Your task to perform on an android device: stop showing notifications on the lock screen Image 0: 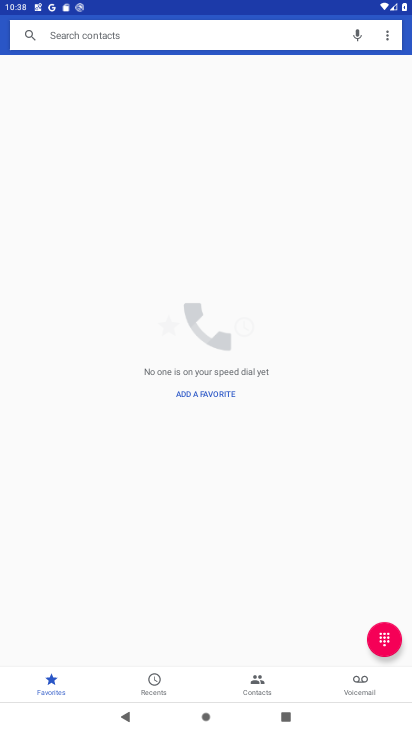
Step 0: press home button
Your task to perform on an android device: stop showing notifications on the lock screen Image 1: 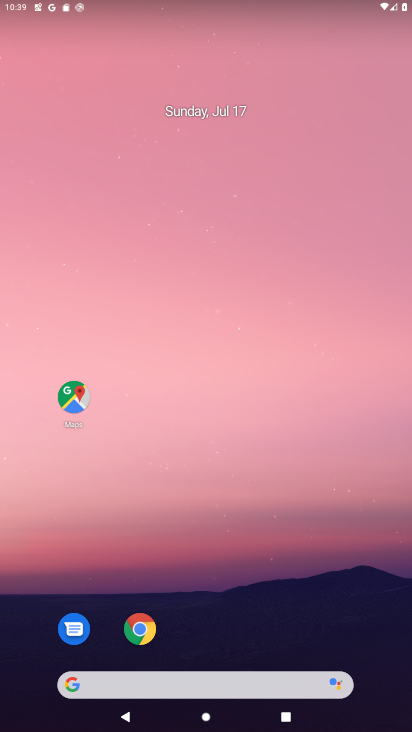
Step 1: drag from (179, 681) to (372, 96)
Your task to perform on an android device: stop showing notifications on the lock screen Image 2: 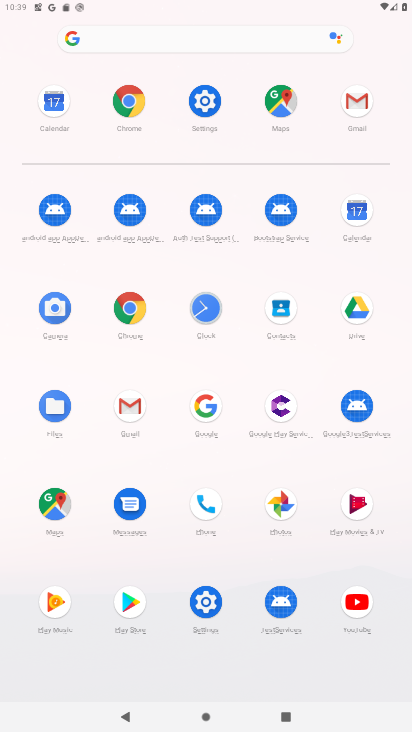
Step 2: click (204, 99)
Your task to perform on an android device: stop showing notifications on the lock screen Image 3: 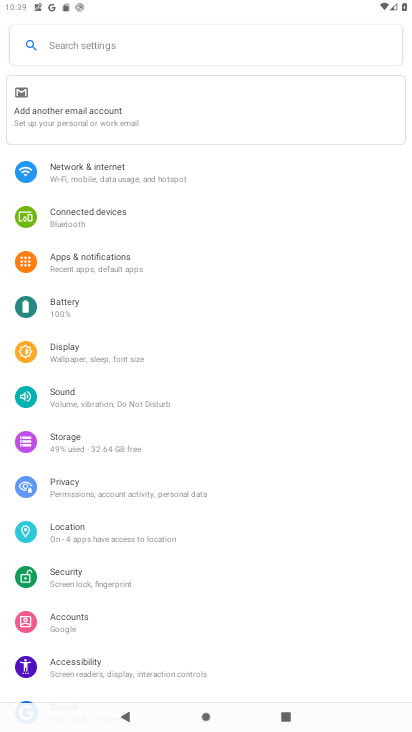
Step 3: click (119, 269)
Your task to perform on an android device: stop showing notifications on the lock screen Image 4: 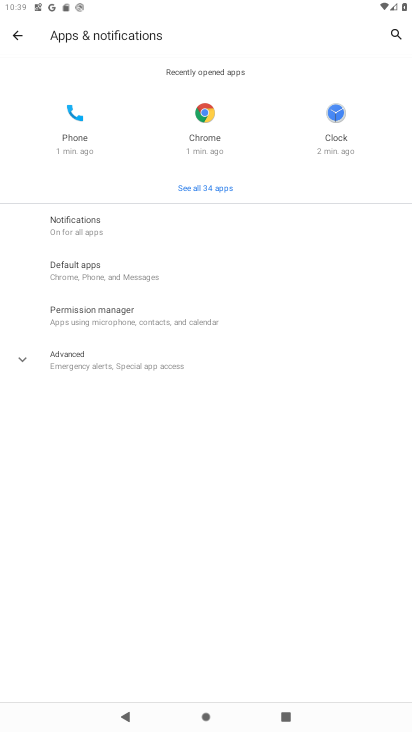
Step 4: click (78, 230)
Your task to perform on an android device: stop showing notifications on the lock screen Image 5: 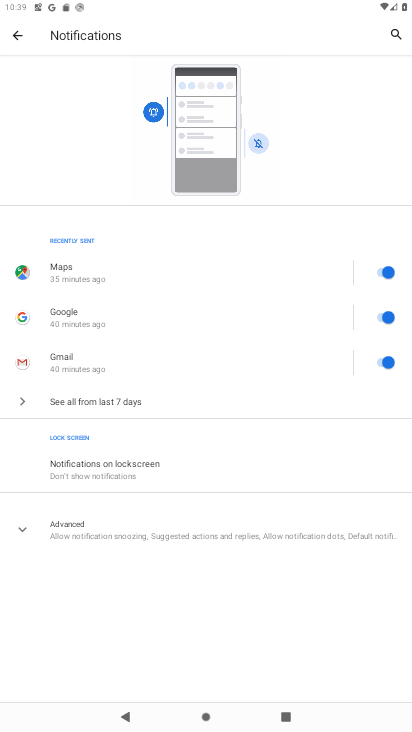
Step 5: click (102, 469)
Your task to perform on an android device: stop showing notifications on the lock screen Image 6: 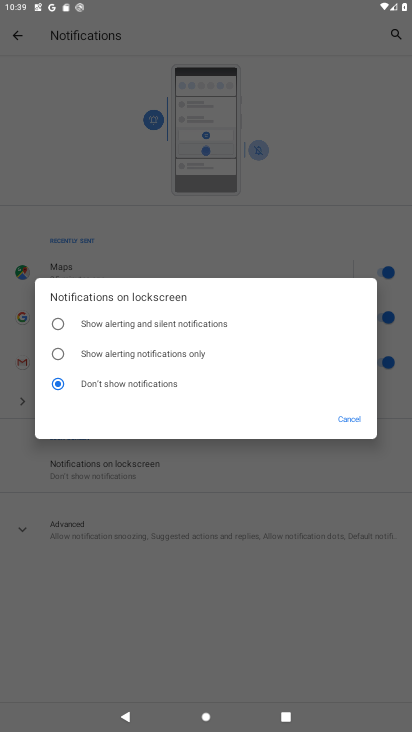
Step 6: click (55, 386)
Your task to perform on an android device: stop showing notifications on the lock screen Image 7: 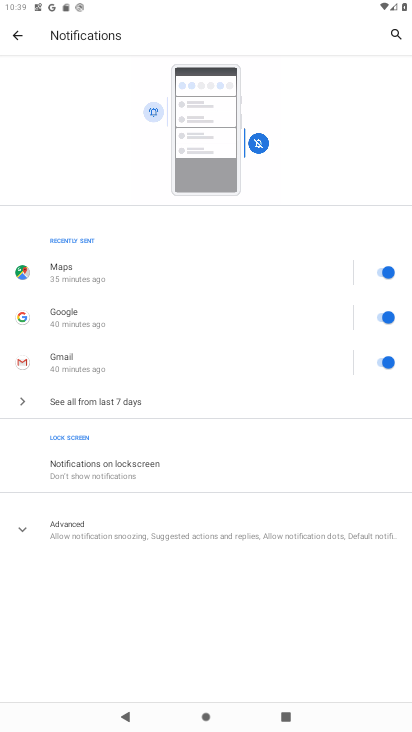
Step 7: task complete